Your task to perform on an android device: turn on location history Image 0: 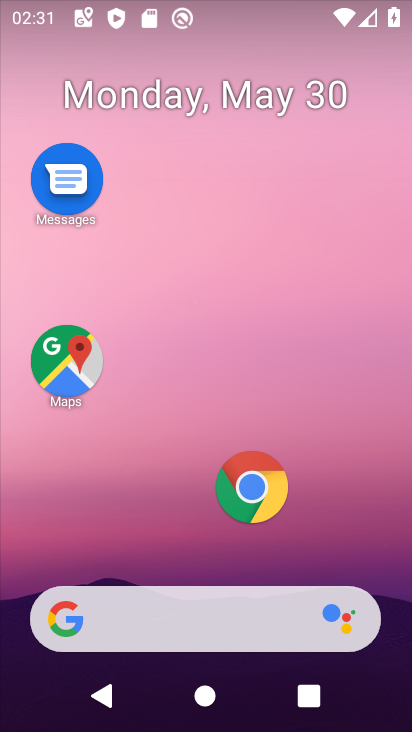
Step 0: drag from (189, 572) to (152, 9)
Your task to perform on an android device: turn on location history Image 1: 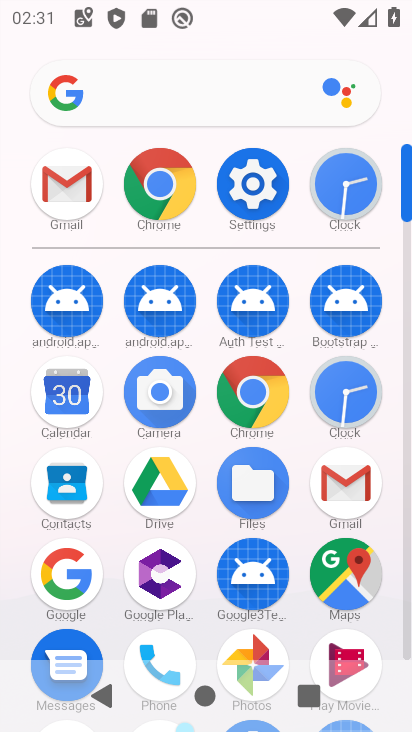
Step 1: drag from (178, 560) to (232, 151)
Your task to perform on an android device: turn on location history Image 2: 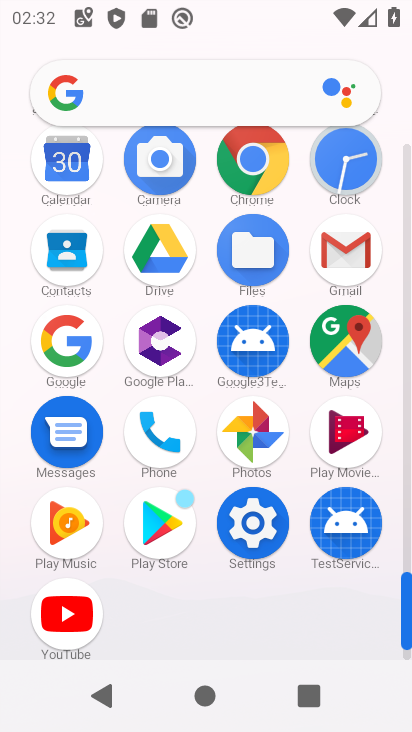
Step 2: click (254, 525)
Your task to perform on an android device: turn on location history Image 3: 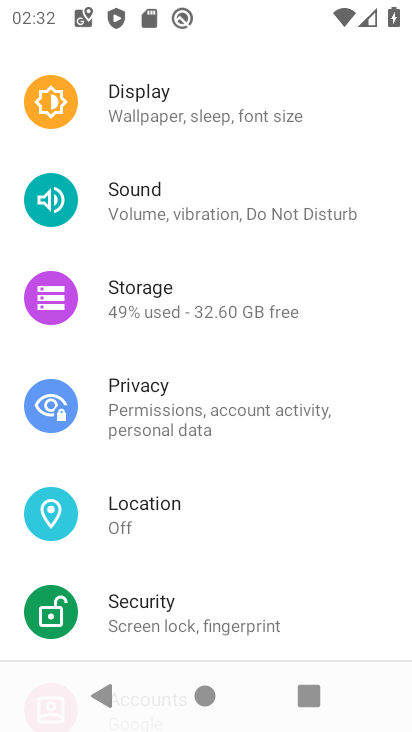
Step 3: click (117, 559)
Your task to perform on an android device: turn on location history Image 4: 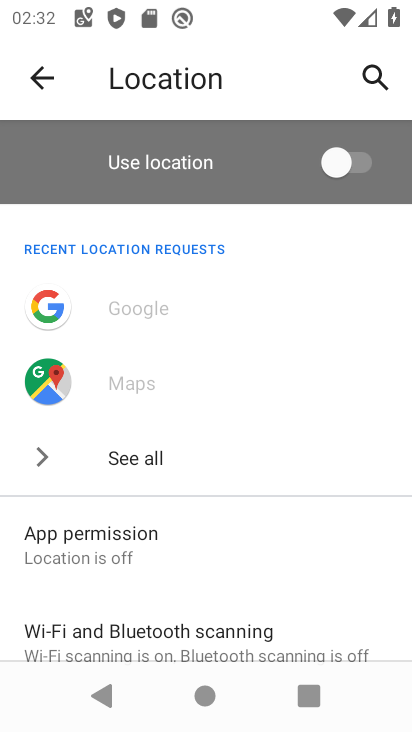
Step 4: drag from (155, 610) to (209, 199)
Your task to perform on an android device: turn on location history Image 5: 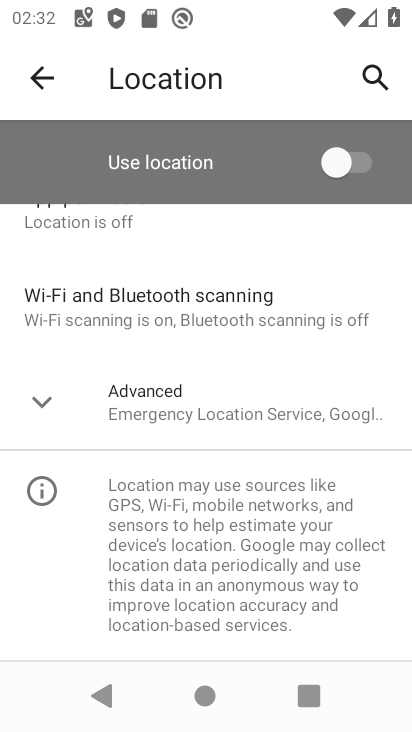
Step 5: click (172, 416)
Your task to perform on an android device: turn on location history Image 6: 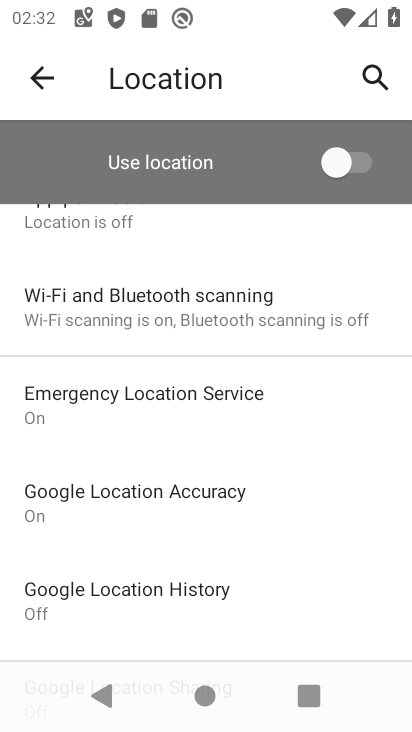
Step 6: click (145, 614)
Your task to perform on an android device: turn on location history Image 7: 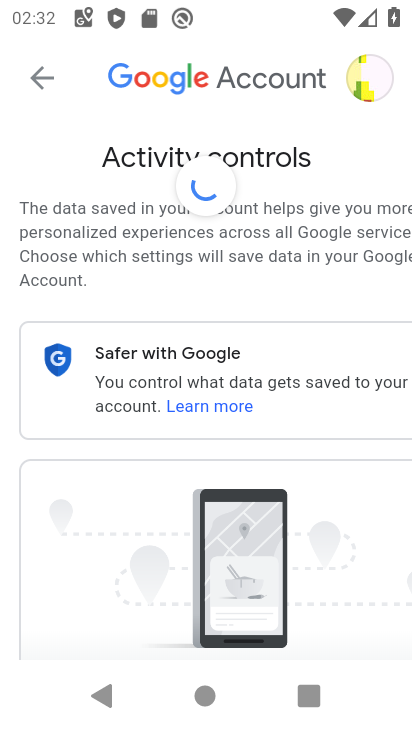
Step 7: drag from (182, 562) to (200, 83)
Your task to perform on an android device: turn on location history Image 8: 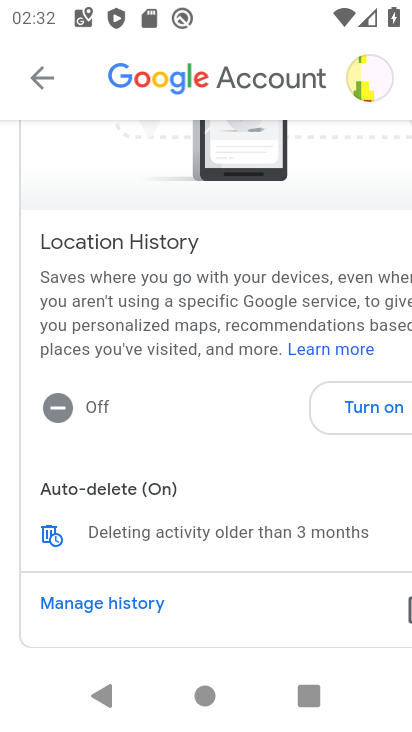
Step 8: click (333, 402)
Your task to perform on an android device: turn on location history Image 9: 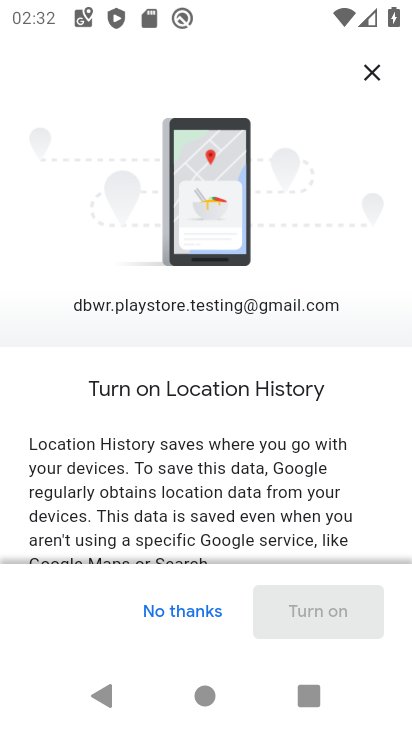
Step 9: drag from (273, 503) to (192, 6)
Your task to perform on an android device: turn on location history Image 10: 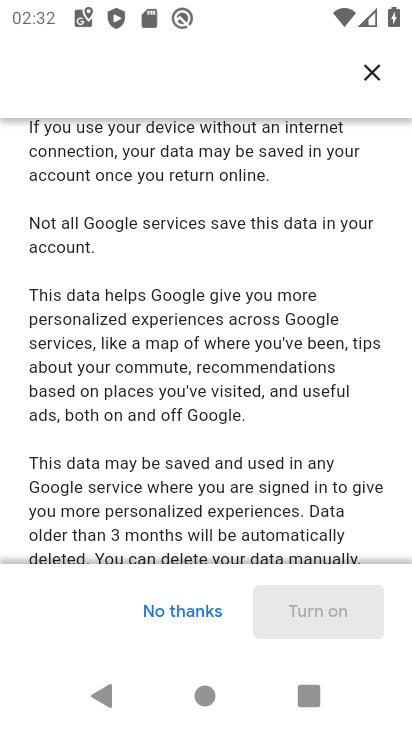
Step 10: drag from (218, 516) to (212, 40)
Your task to perform on an android device: turn on location history Image 11: 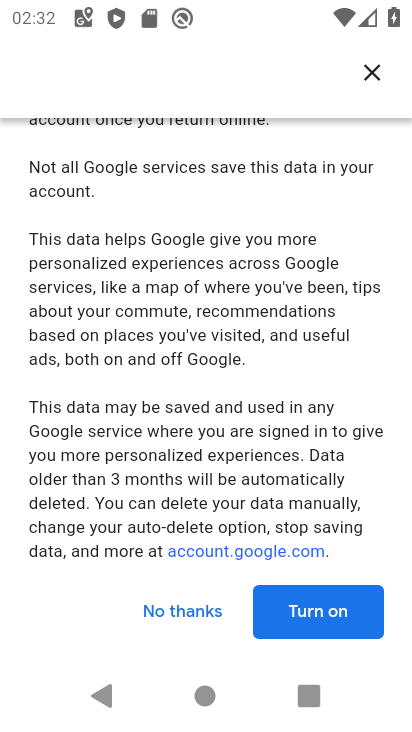
Step 11: click (319, 618)
Your task to perform on an android device: turn on location history Image 12: 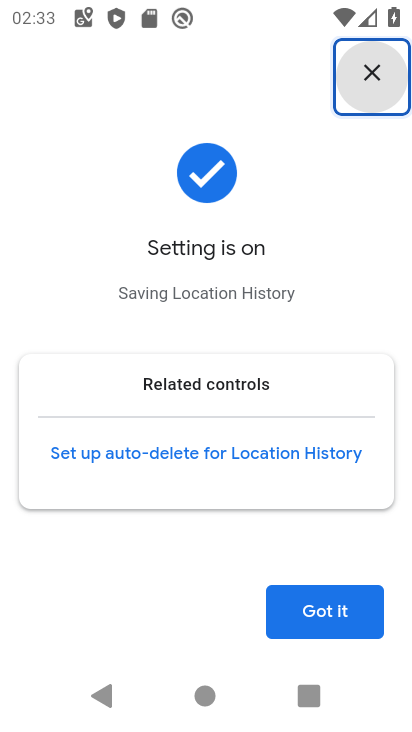
Step 12: click (340, 621)
Your task to perform on an android device: turn on location history Image 13: 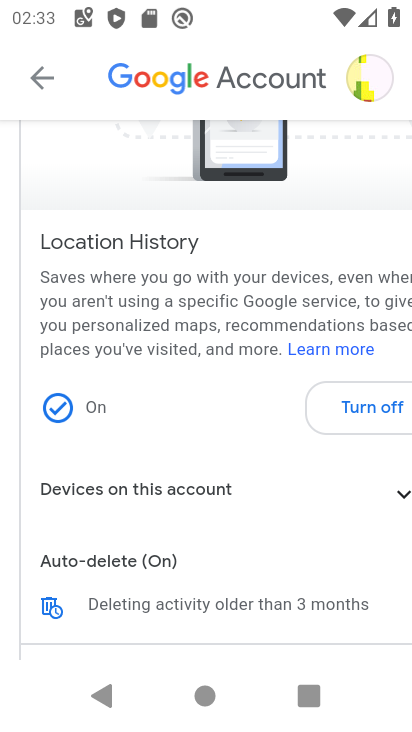
Step 13: task complete